Your task to perform on an android device: Open Youtube and go to the subscriptions tab Image 0: 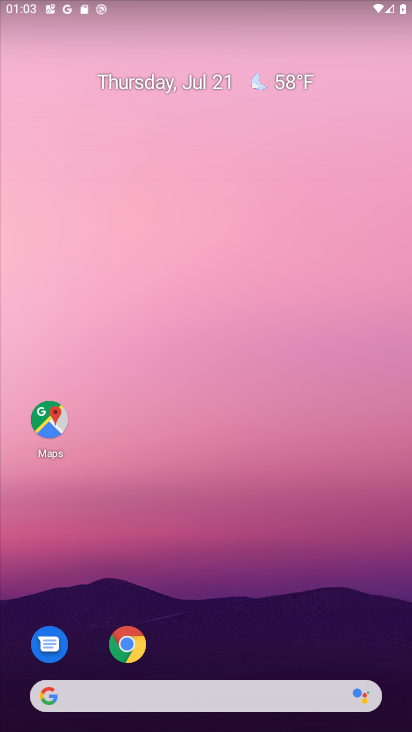
Step 0: drag from (271, 468) to (199, 66)
Your task to perform on an android device: Open Youtube and go to the subscriptions tab Image 1: 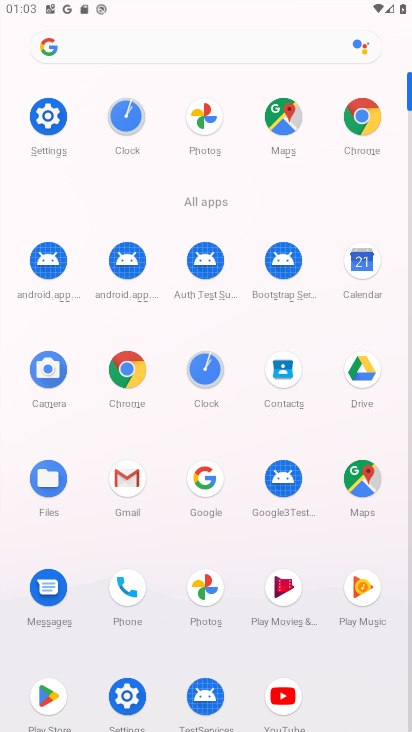
Step 1: click (288, 697)
Your task to perform on an android device: Open Youtube and go to the subscriptions tab Image 2: 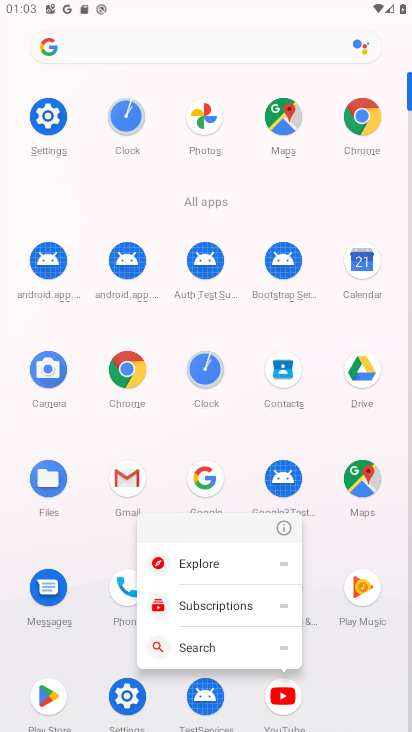
Step 2: click (281, 694)
Your task to perform on an android device: Open Youtube and go to the subscriptions tab Image 3: 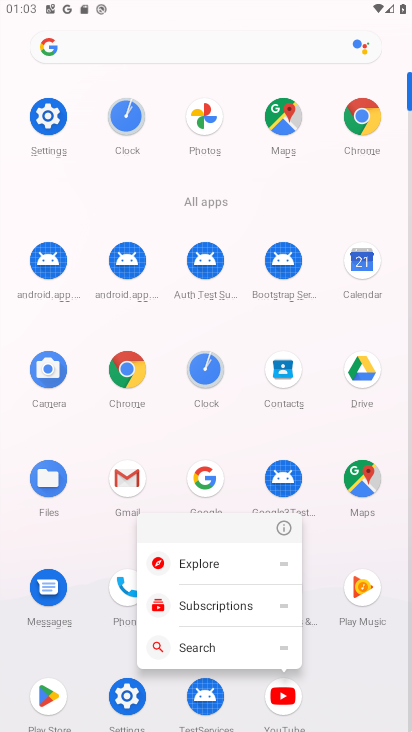
Step 3: click (281, 694)
Your task to perform on an android device: Open Youtube and go to the subscriptions tab Image 4: 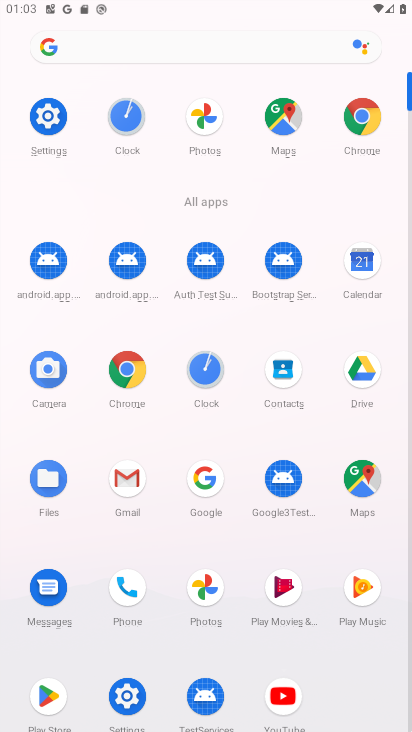
Step 4: click (281, 694)
Your task to perform on an android device: Open Youtube and go to the subscriptions tab Image 5: 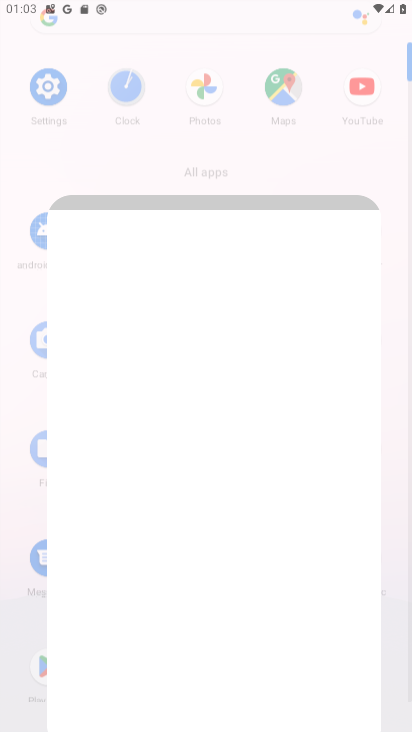
Step 5: click (281, 694)
Your task to perform on an android device: Open Youtube and go to the subscriptions tab Image 6: 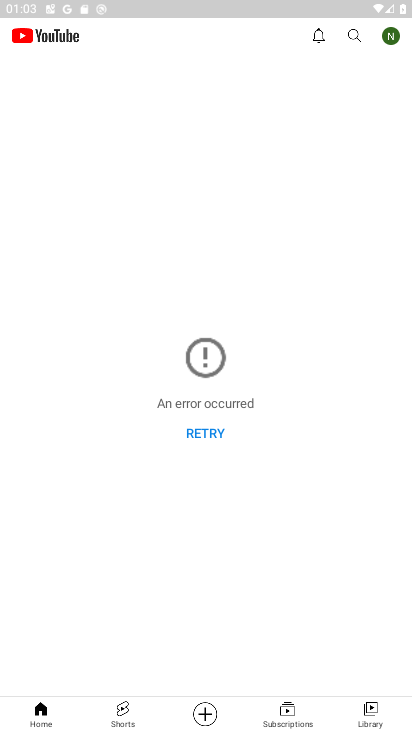
Step 6: click (290, 712)
Your task to perform on an android device: Open Youtube and go to the subscriptions tab Image 7: 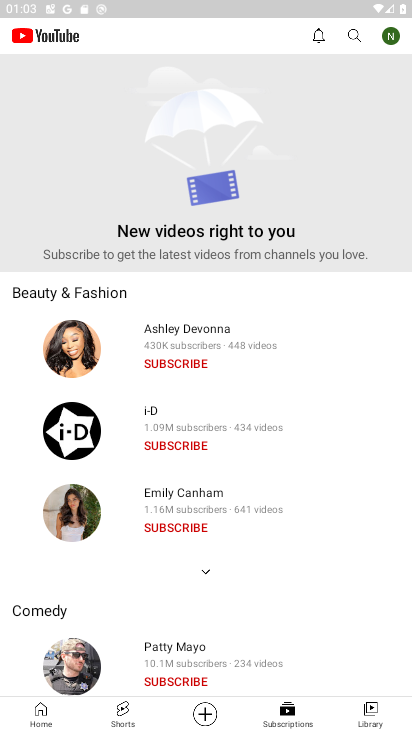
Step 7: task complete